Your task to perform on an android device: toggle translation in the chrome app Image 0: 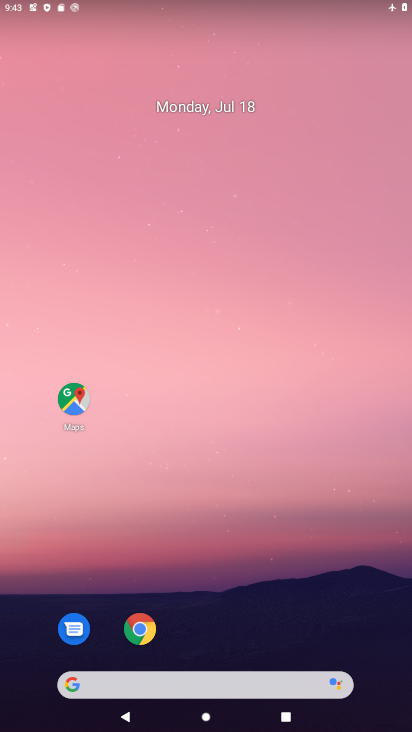
Step 0: drag from (242, 520) to (174, 214)
Your task to perform on an android device: toggle translation in the chrome app Image 1: 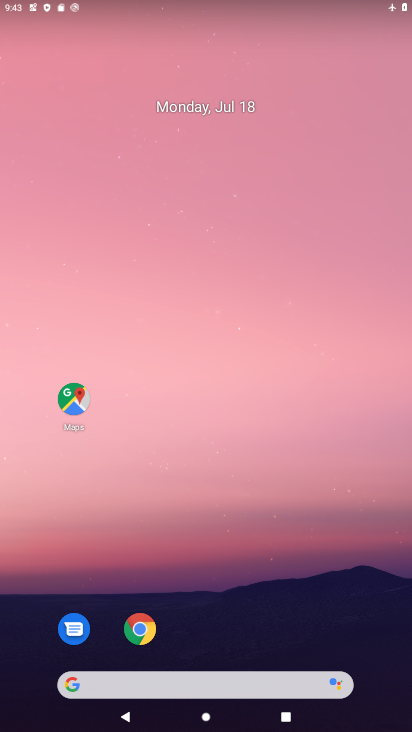
Step 1: drag from (239, 642) to (195, 190)
Your task to perform on an android device: toggle translation in the chrome app Image 2: 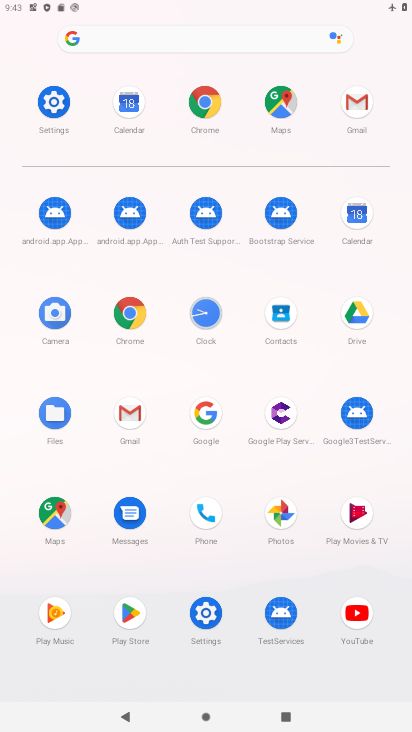
Step 2: click (118, 308)
Your task to perform on an android device: toggle translation in the chrome app Image 3: 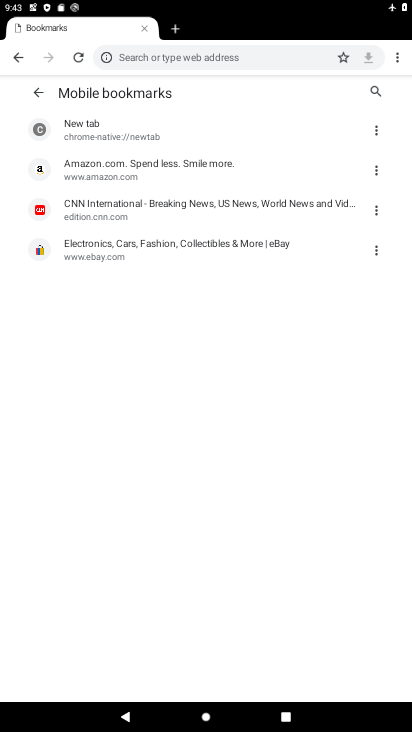
Step 3: drag from (393, 51) to (271, 296)
Your task to perform on an android device: toggle translation in the chrome app Image 4: 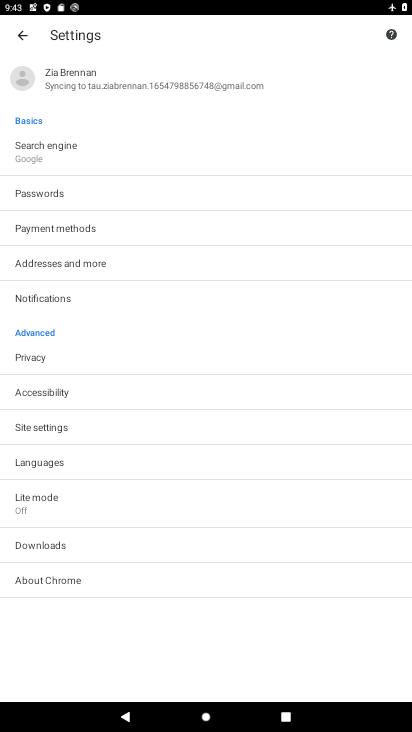
Step 4: click (60, 457)
Your task to perform on an android device: toggle translation in the chrome app Image 5: 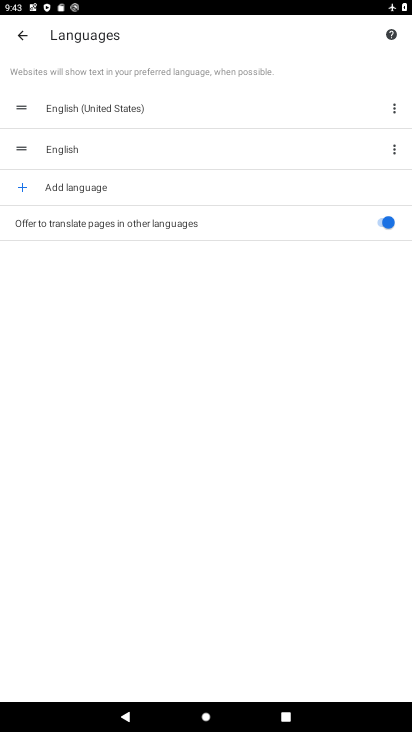
Step 5: click (378, 217)
Your task to perform on an android device: toggle translation in the chrome app Image 6: 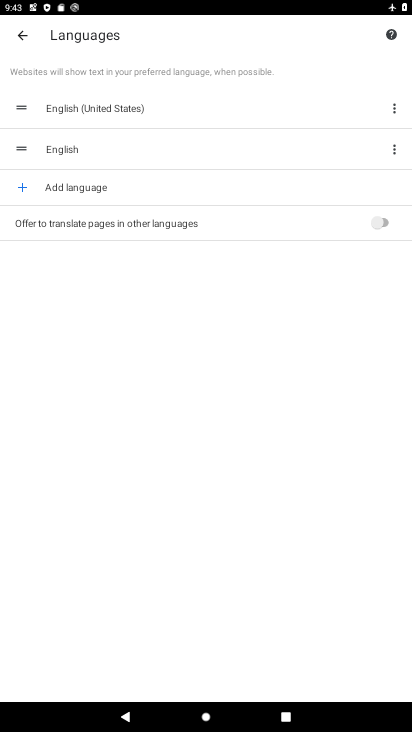
Step 6: task complete